Your task to perform on an android device: Go to Google maps Image 0: 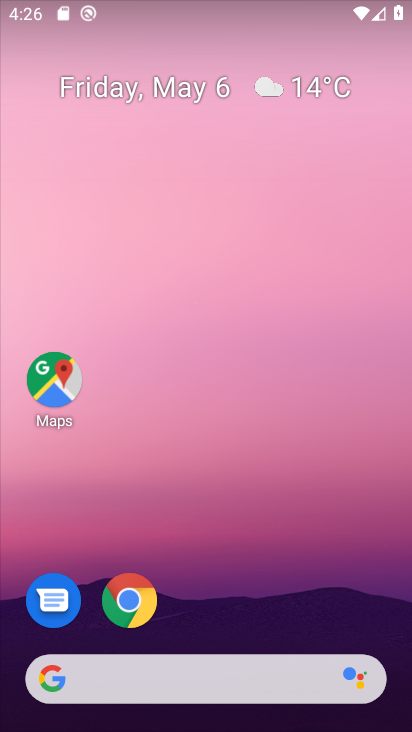
Step 0: click (64, 378)
Your task to perform on an android device: Go to Google maps Image 1: 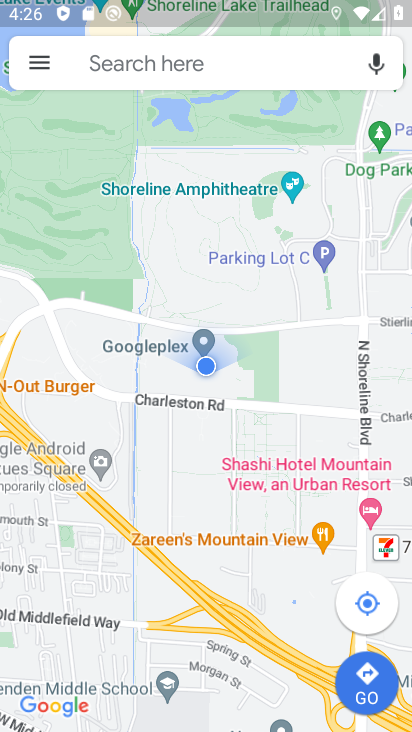
Step 1: task complete